Your task to perform on an android device: make emails show in primary in the gmail app Image 0: 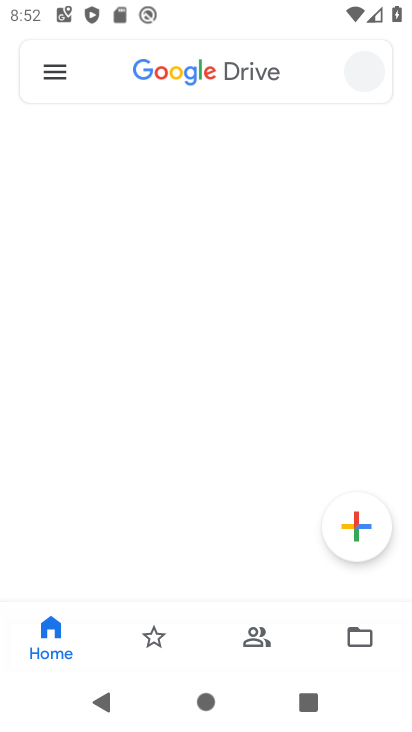
Step 0: click (219, 521)
Your task to perform on an android device: make emails show in primary in the gmail app Image 1: 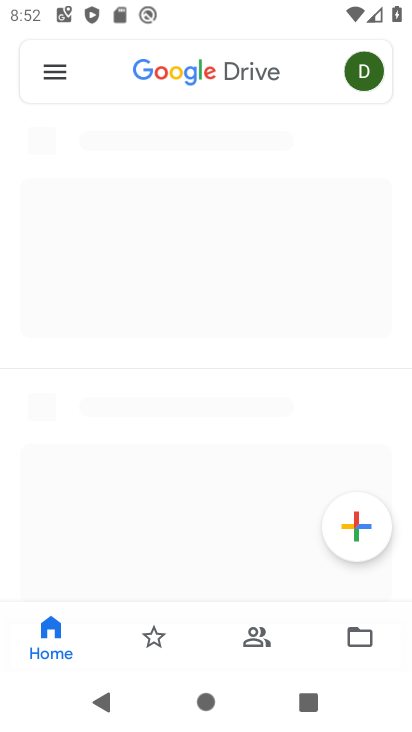
Step 1: click (238, 533)
Your task to perform on an android device: make emails show in primary in the gmail app Image 2: 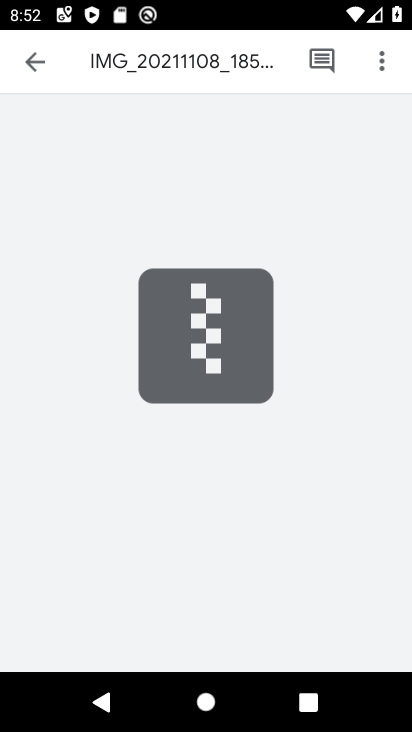
Step 2: press home button
Your task to perform on an android device: make emails show in primary in the gmail app Image 3: 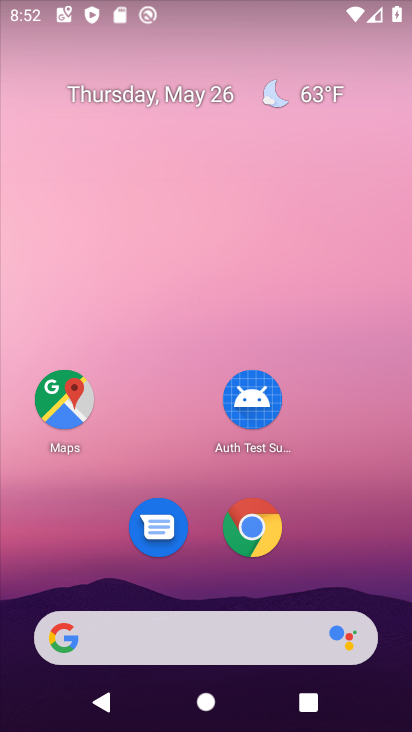
Step 3: click (271, 526)
Your task to perform on an android device: make emails show in primary in the gmail app Image 4: 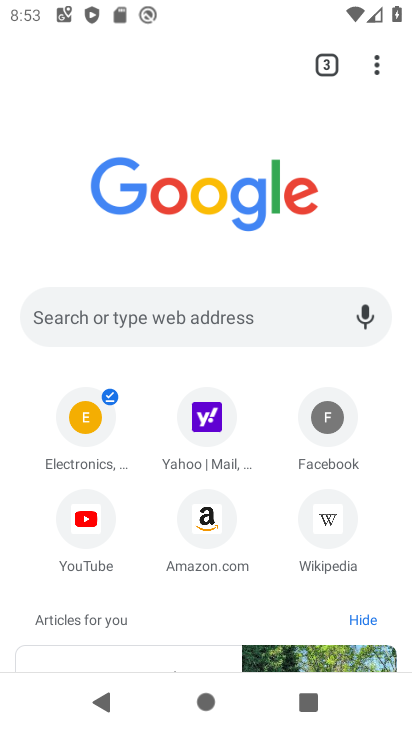
Step 4: click (374, 79)
Your task to perform on an android device: make emails show in primary in the gmail app Image 5: 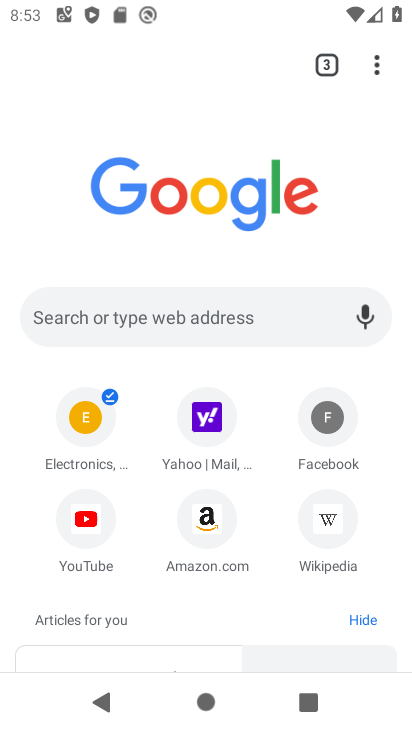
Step 5: press home button
Your task to perform on an android device: make emails show in primary in the gmail app Image 6: 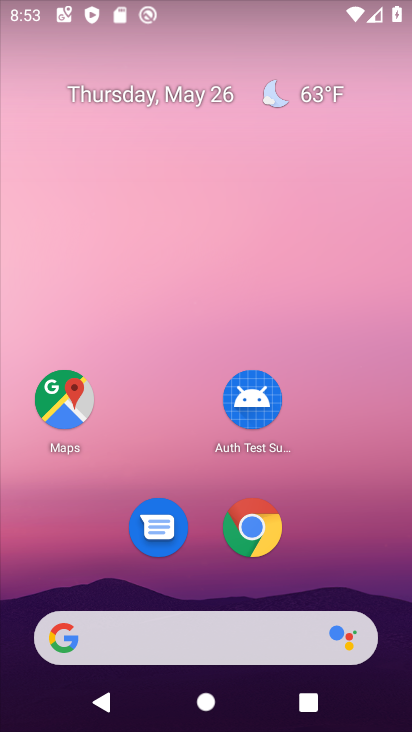
Step 6: drag from (400, 540) to (401, 132)
Your task to perform on an android device: make emails show in primary in the gmail app Image 7: 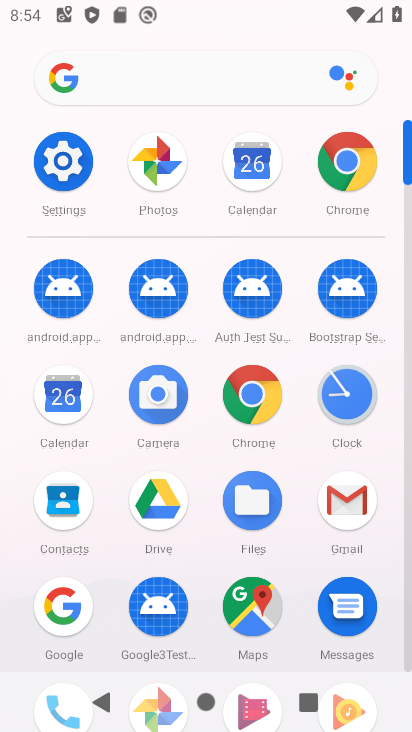
Step 7: click (360, 495)
Your task to perform on an android device: make emails show in primary in the gmail app Image 8: 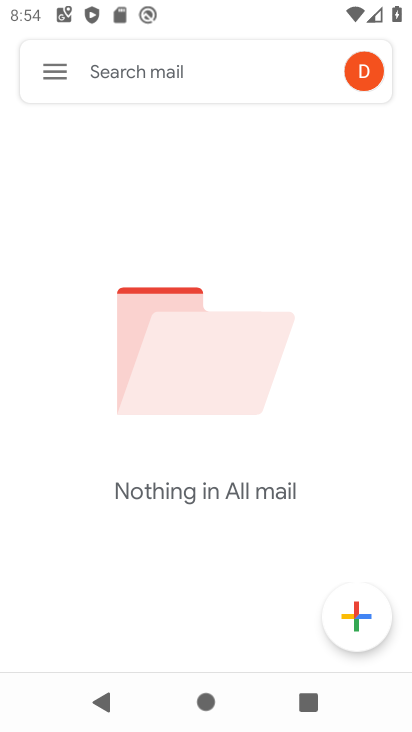
Step 8: click (360, 495)
Your task to perform on an android device: make emails show in primary in the gmail app Image 9: 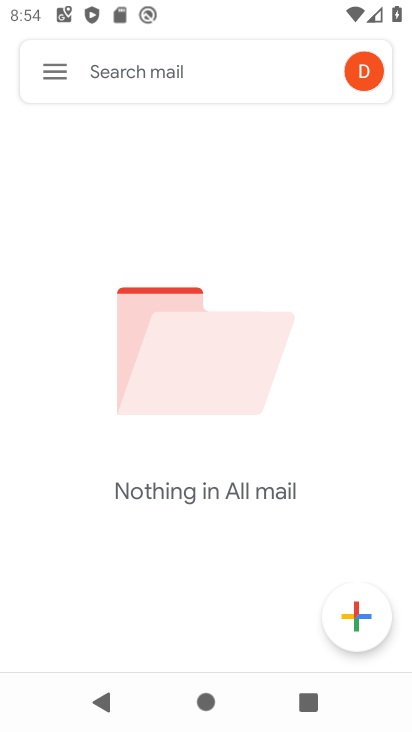
Step 9: click (63, 84)
Your task to perform on an android device: make emails show in primary in the gmail app Image 10: 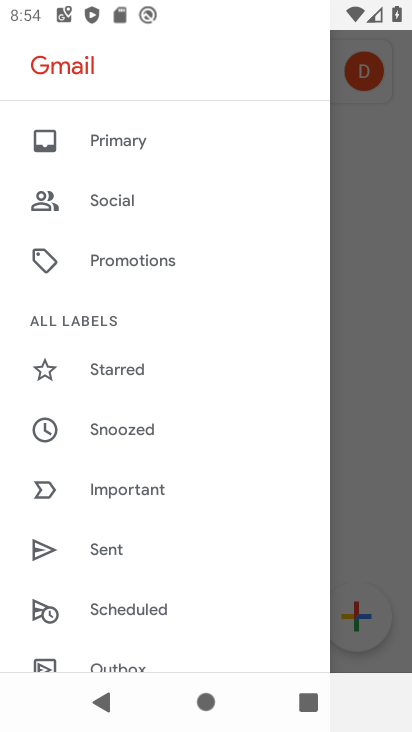
Step 10: drag from (146, 553) to (158, 127)
Your task to perform on an android device: make emails show in primary in the gmail app Image 11: 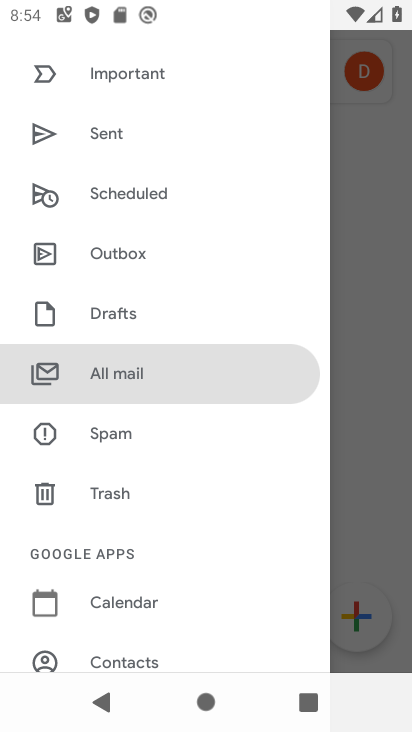
Step 11: drag from (134, 583) to (156, 323)
Your task to perform on an android device: make emails show in primary in the gmail app Image 12: 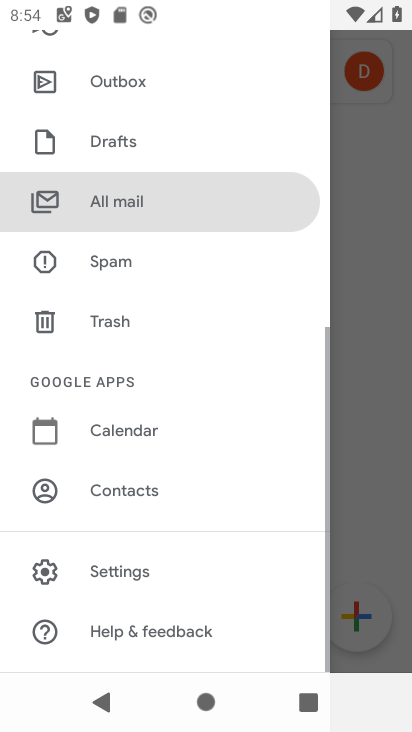
Step 12: click (125, 570)
Your task to perform on an android device: make emails show in primary in the gmail app Image 13: 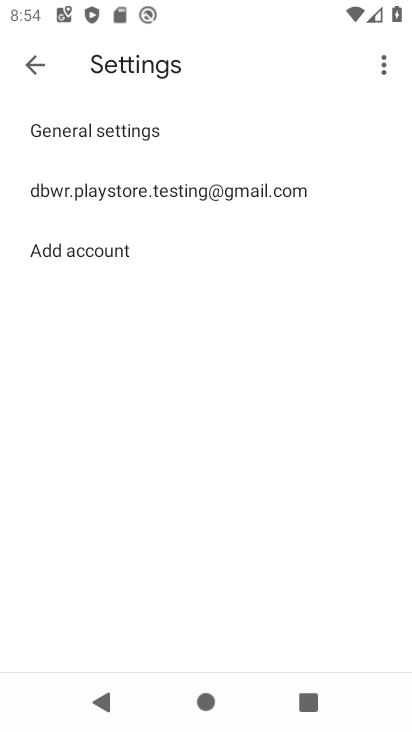
Step 13: click (74, 200)
Your task to perform on an android device: make emails show in primary in the gmail app Image 14: 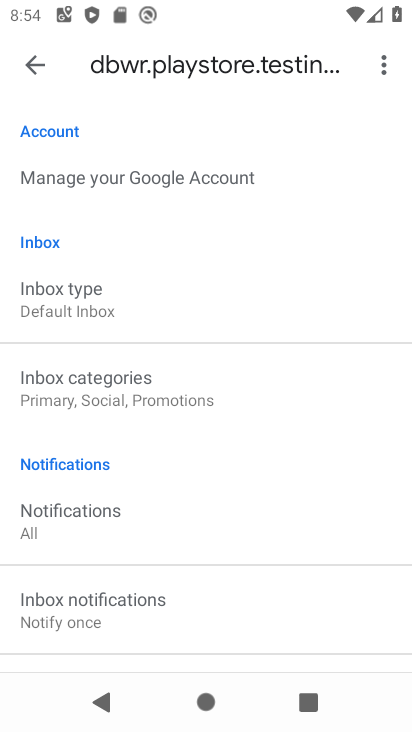
Step 14: click (67, 313)
Your task to perform on an android device: make emails show in primary in the gmail app Image 15: 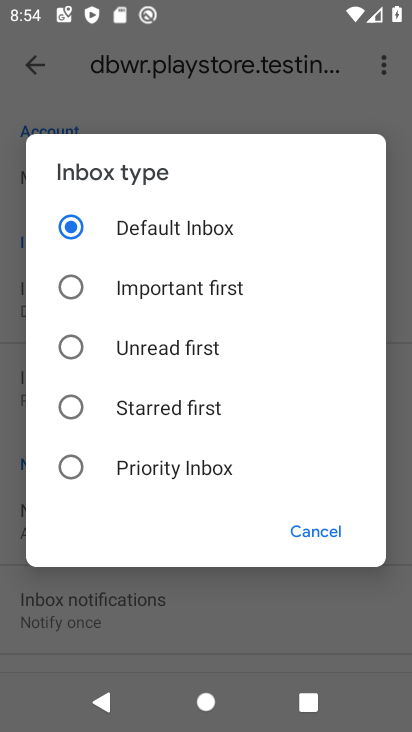
Step 15: task complete